Your task to perform on an android device: toggle pop-ups in chrome Image 0: 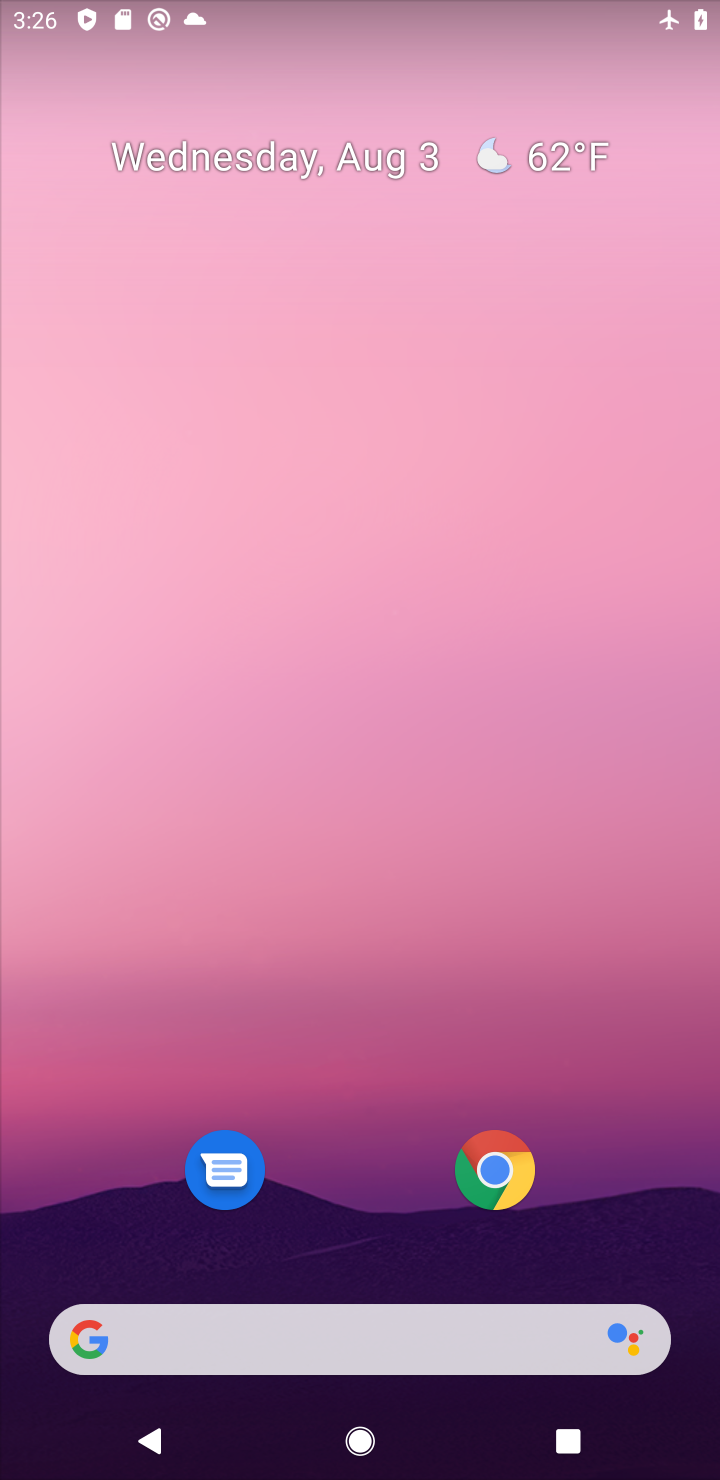
Step 0: drag from (402, 1233) to (393, 316)
Your task to perform on an android device: toggle pop-ups in chrome Image 1: 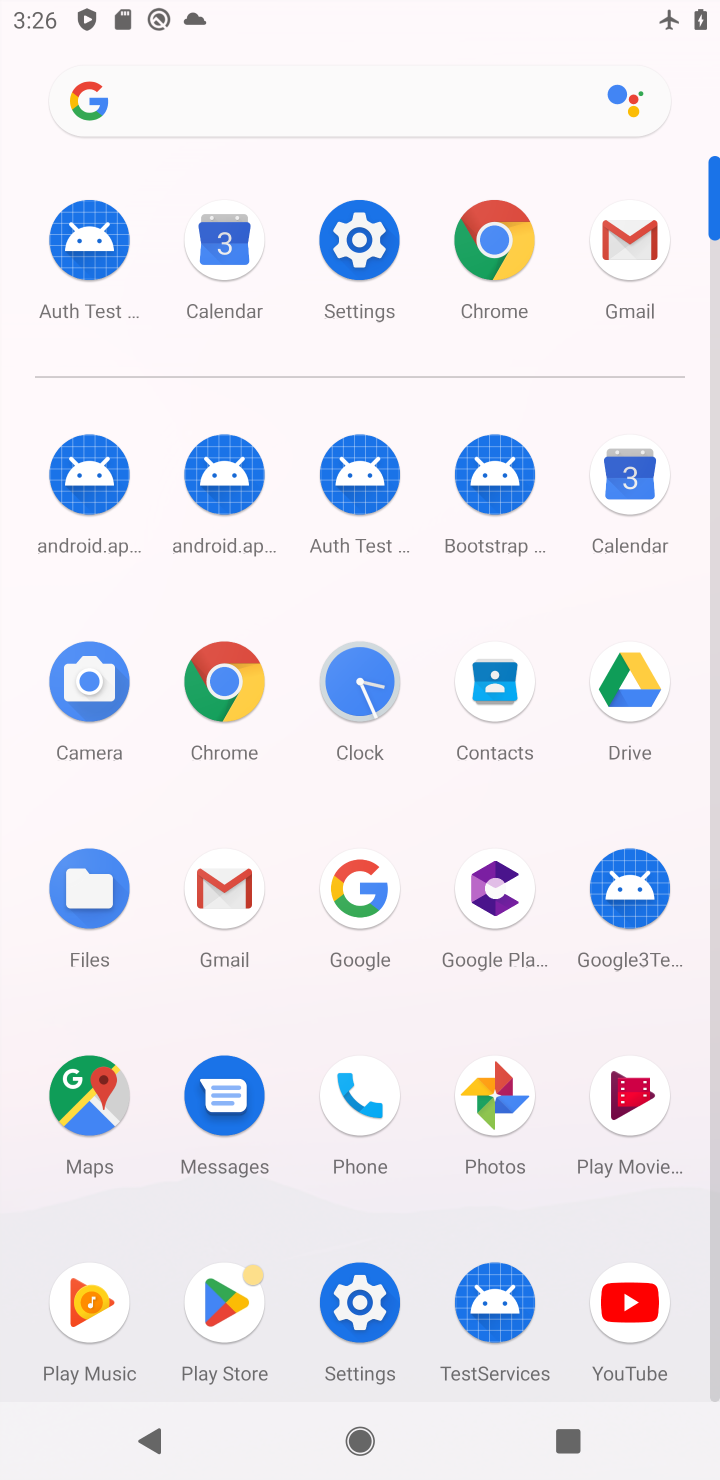
Step 1: click (502, 268)
Your task to perform on an android device: toggle pop-ups in chrome Image 2: 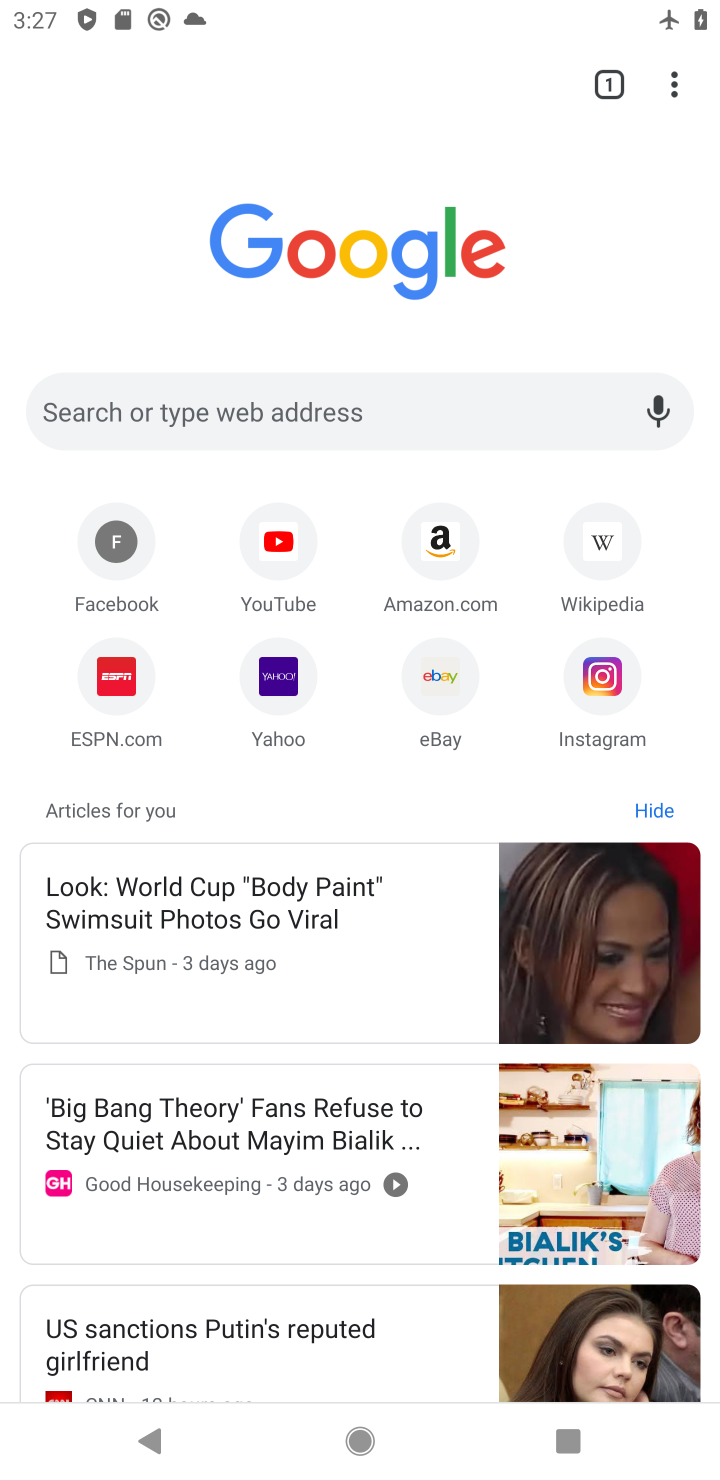
Step 2: click (678, 82)
Your task to perform on an android device: toggle pop-ups in chrome Image 3: 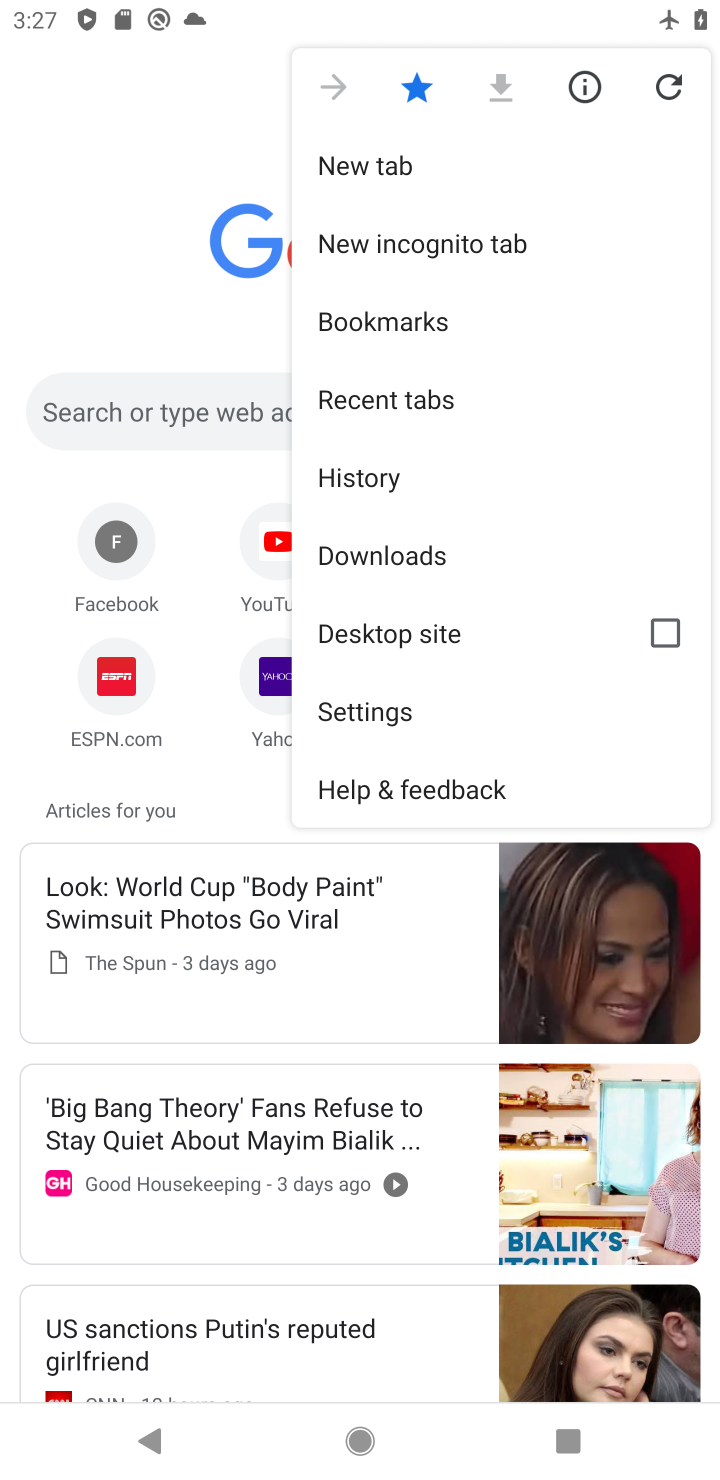
Step 3: click (678, 82)
Your task to perform on an android device: toggle pop-ups in chrome Image 4: 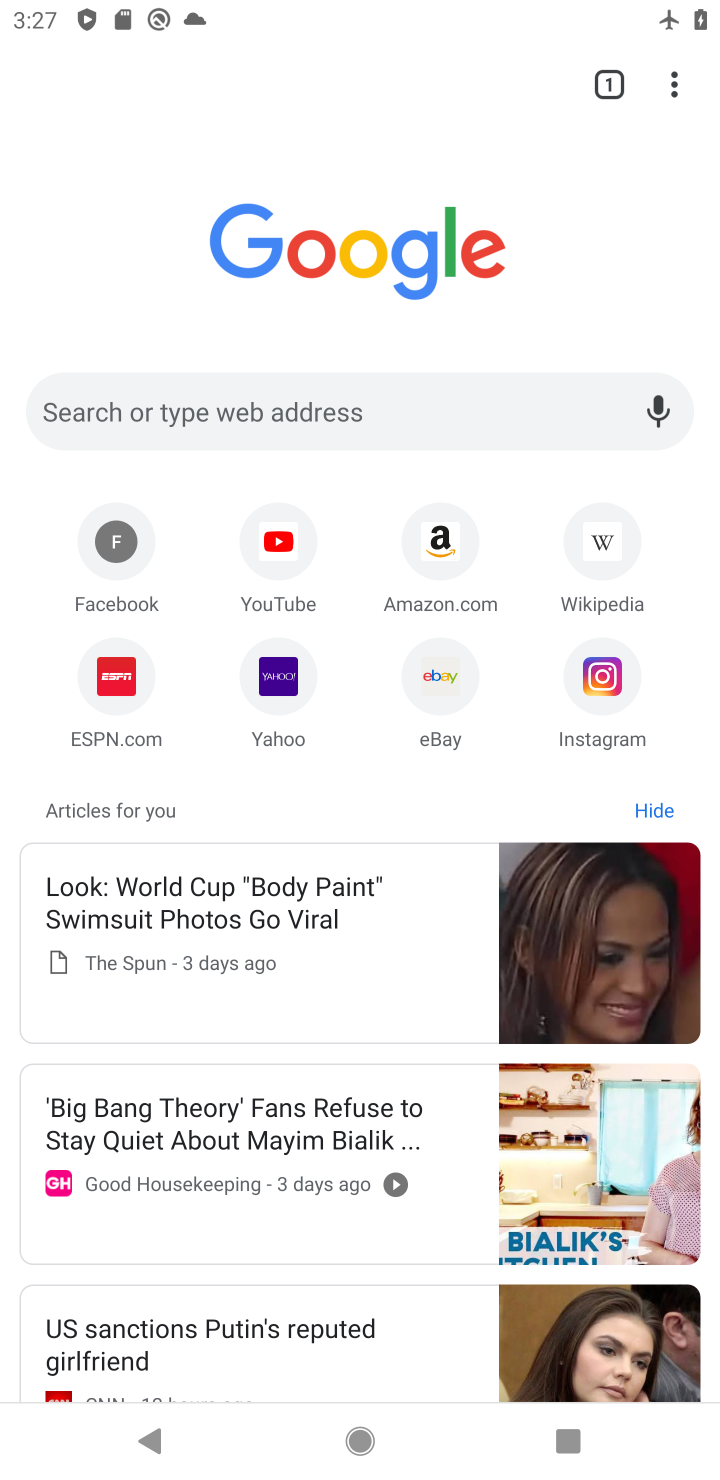
Step 4: click (678, 86)
Your task to perform on an android device: toggle pop-ups in chrome Image 5: 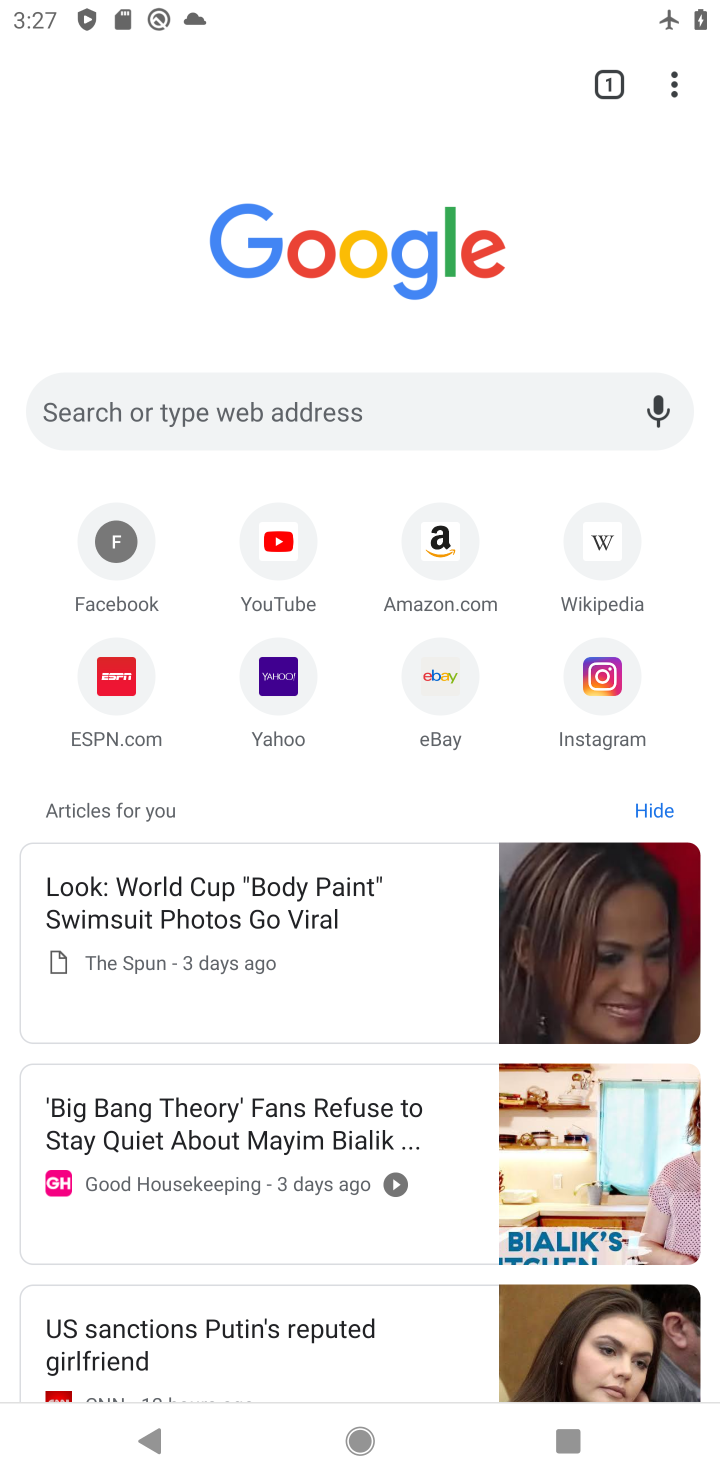
Step 5: click (678, 94)
Your task to perform on an android device: toggle pop-ups in chrome Image 6: 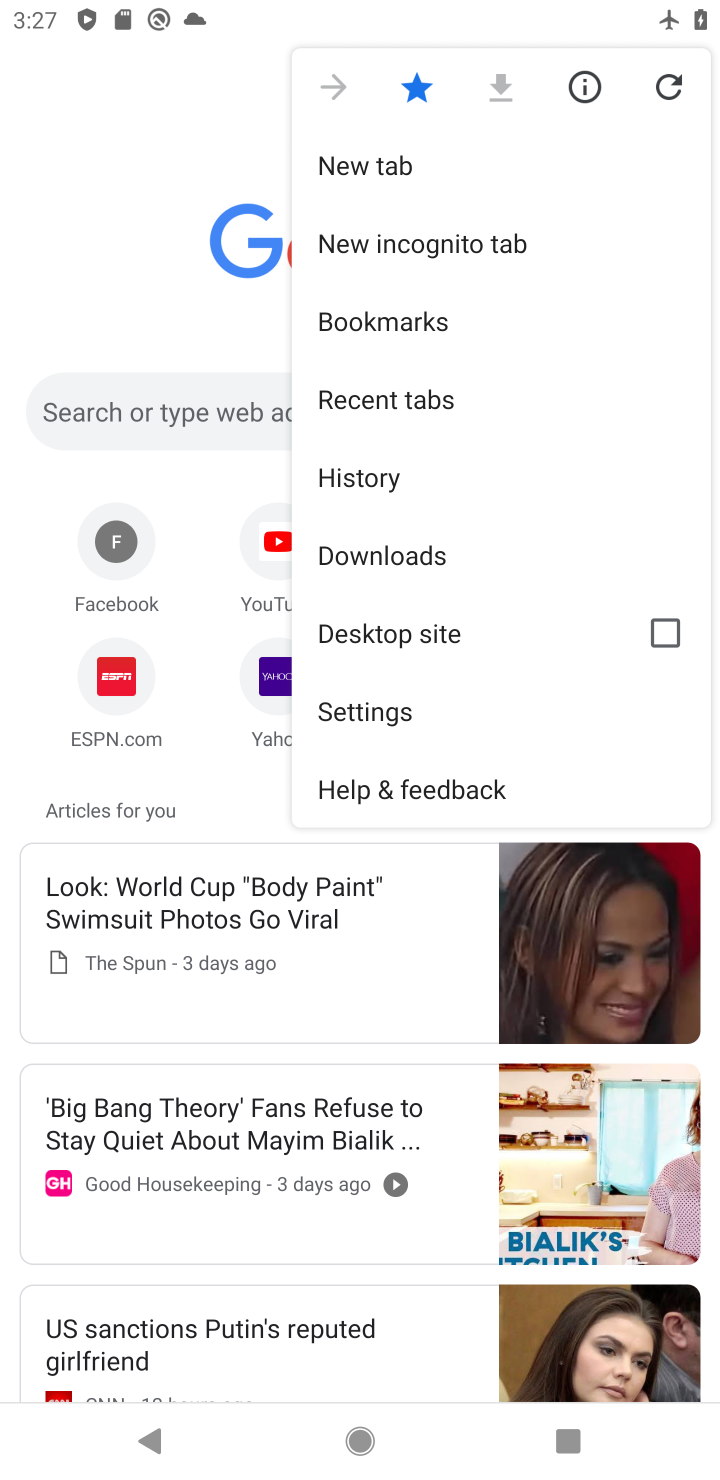
Step 6: click (359, 710)
Your task to perform on an android device: toggle pop-ups in chrome Image 7: 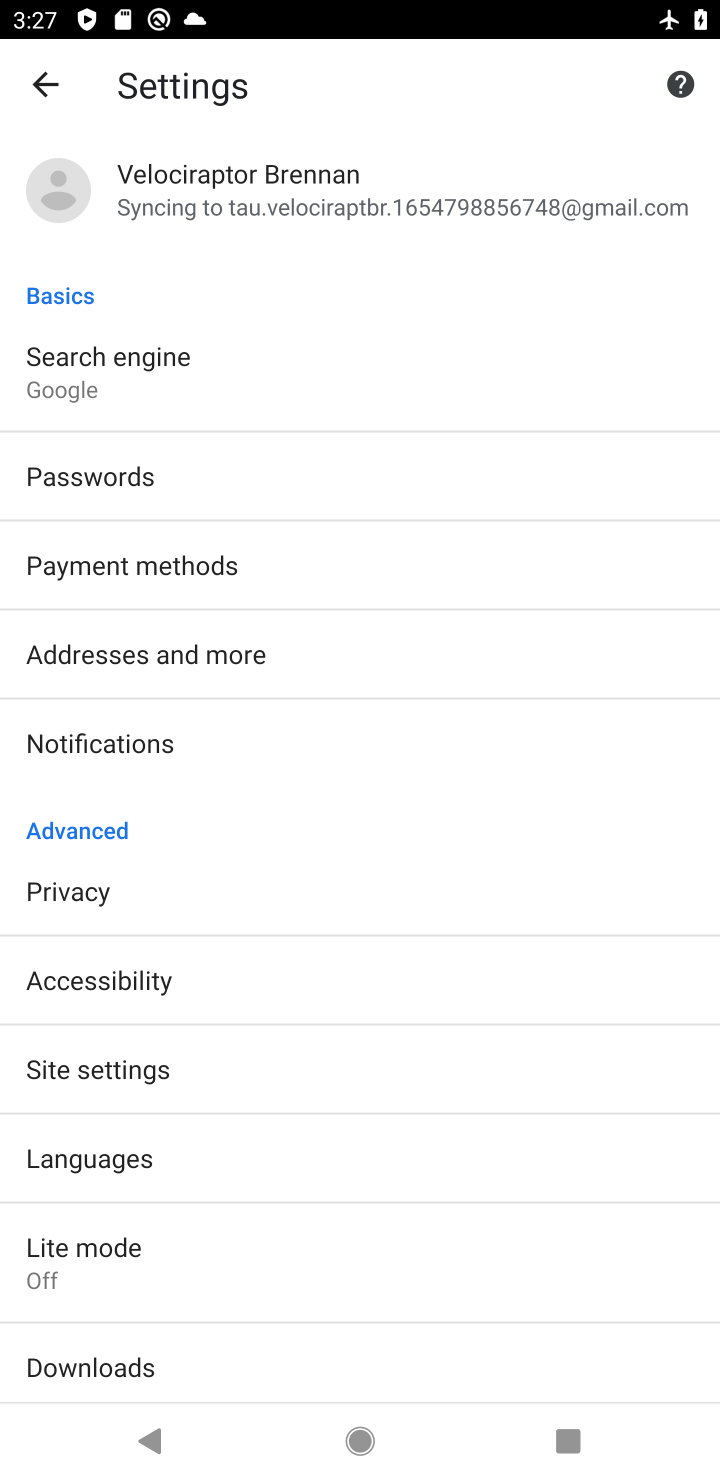
Step 7: click (155, 1072)
Your task to perform on an android device: toggle pop-ups in chrome Image 8: 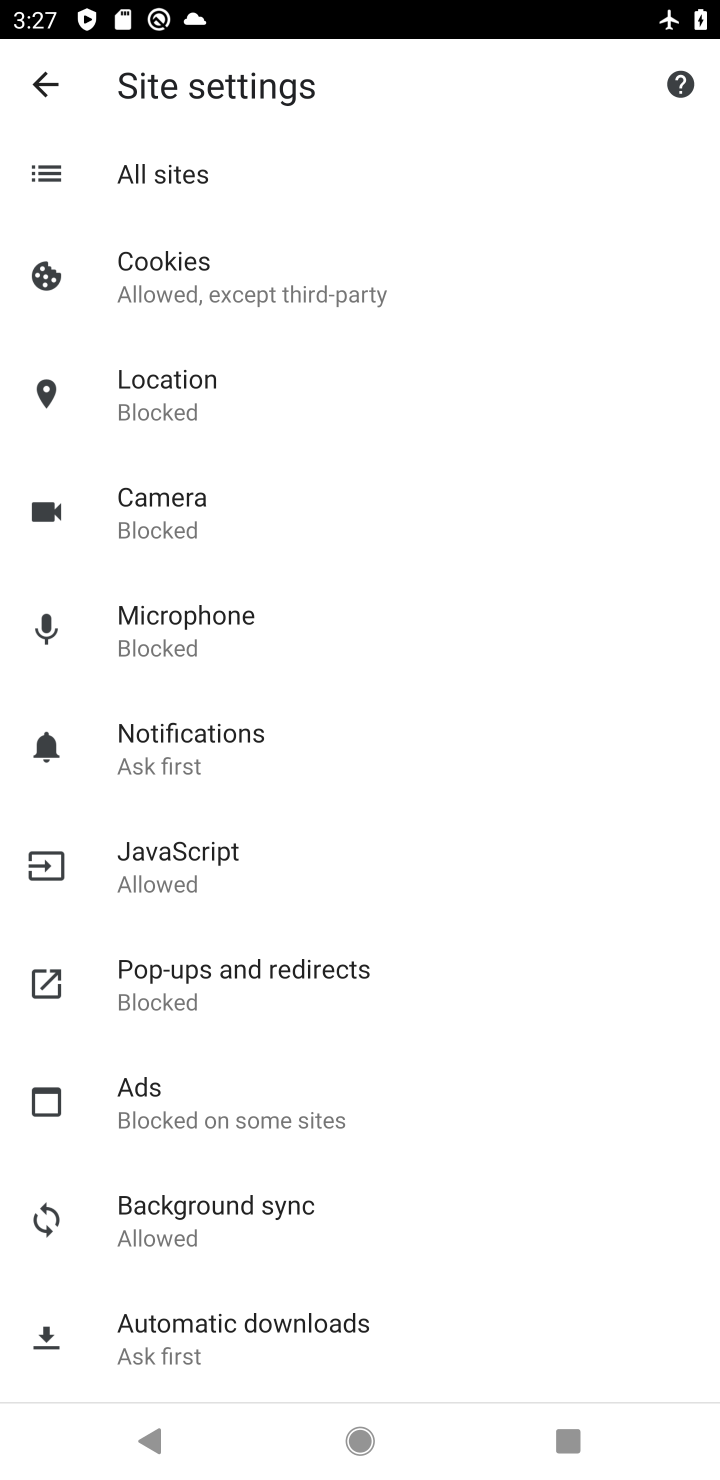
Step 8: click (159, 967)
Your task to perform on an android device: toggle pop-ups in chrome Image 9: 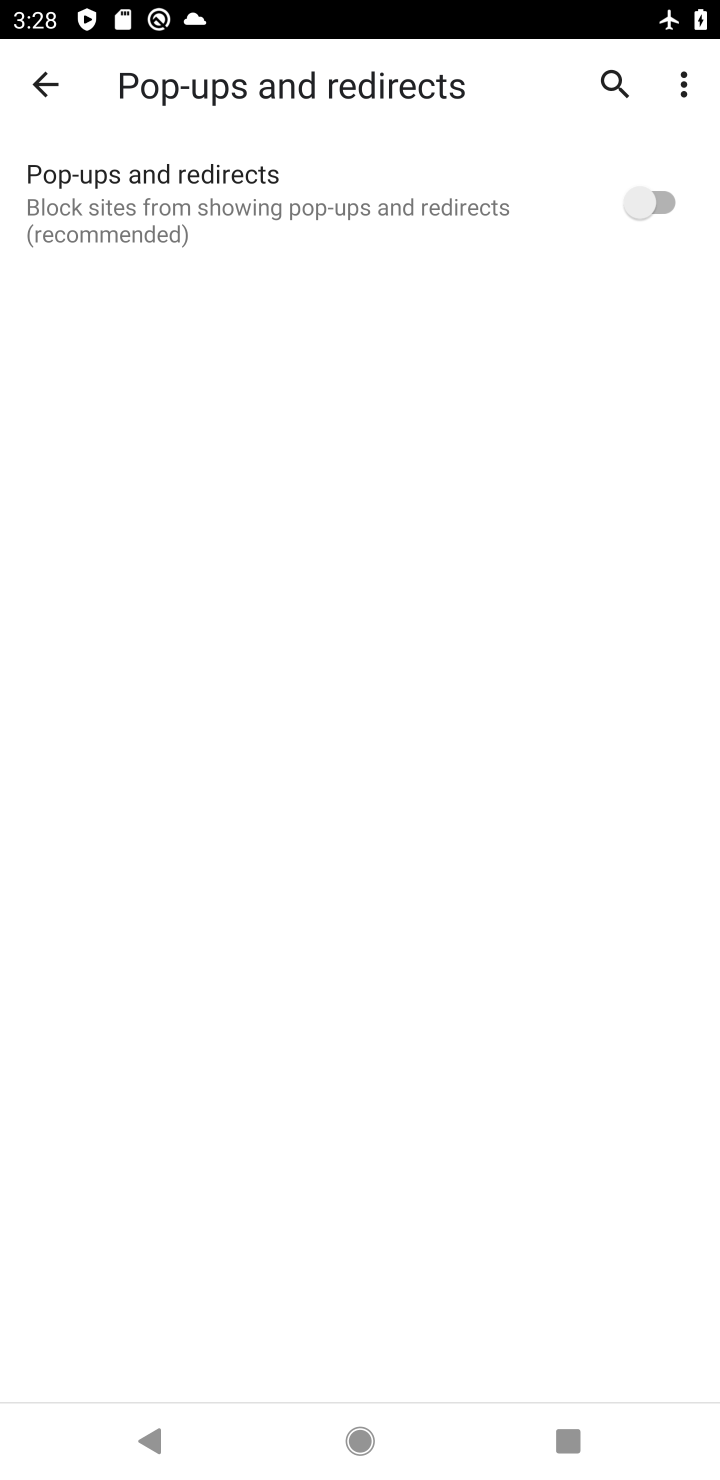
Step 9: click (669, 190)
Your task to perform on an android device: toggle pop-ups in chrome Image 10: 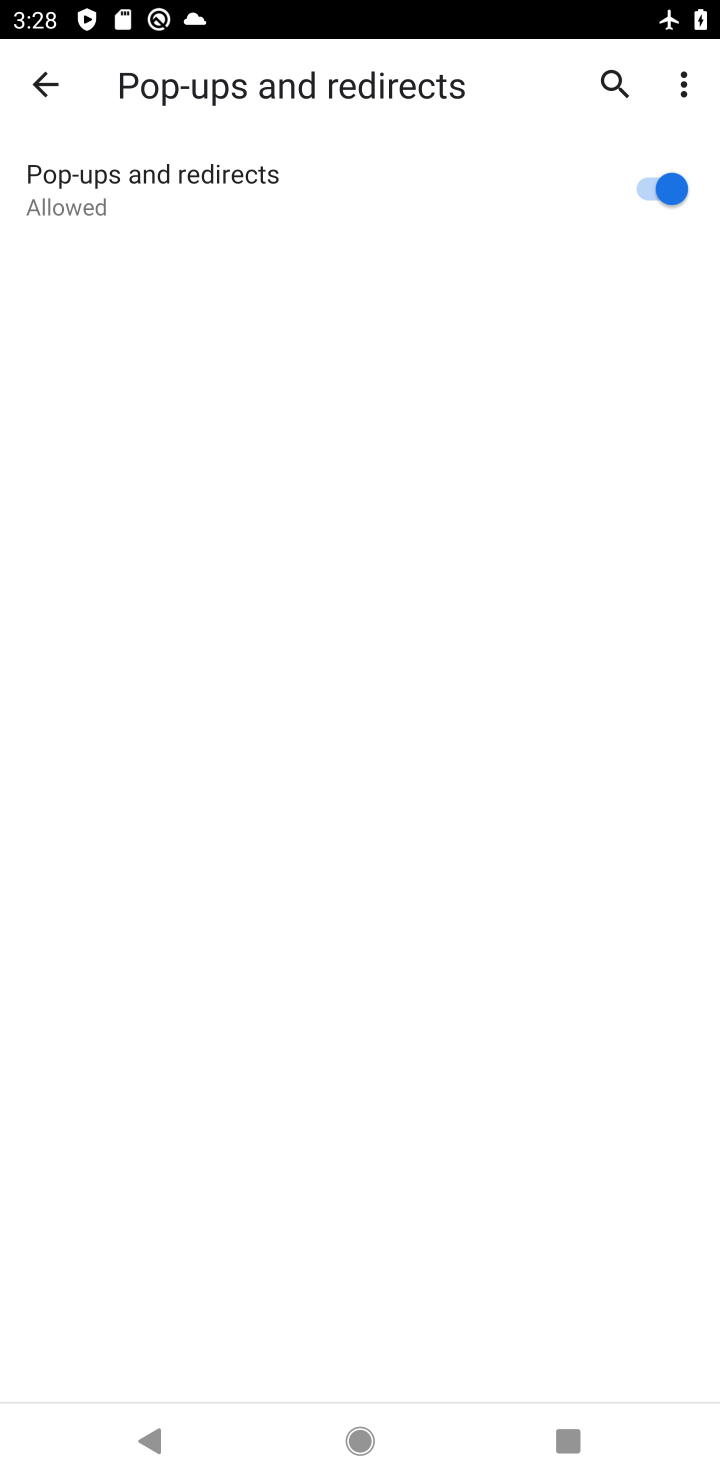
Step 10: task complete